Your task to perform on an android device: toggle javascript in the chrome app Image 0: 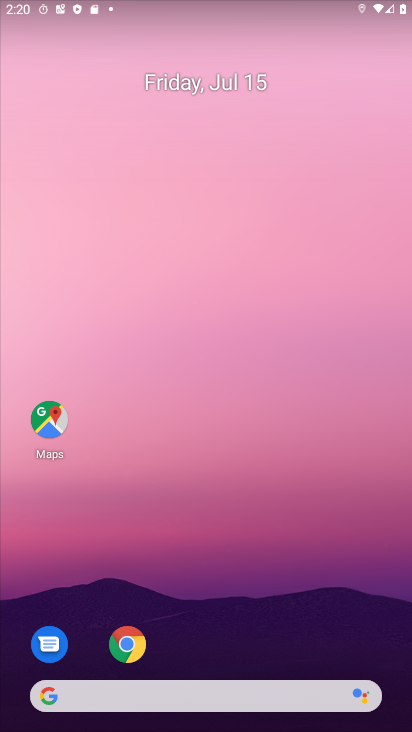
Step 0: drag from (332, 386) to (225, 42)
Your task to perform on an android device: toggle javascript in the chrome app Image 1: 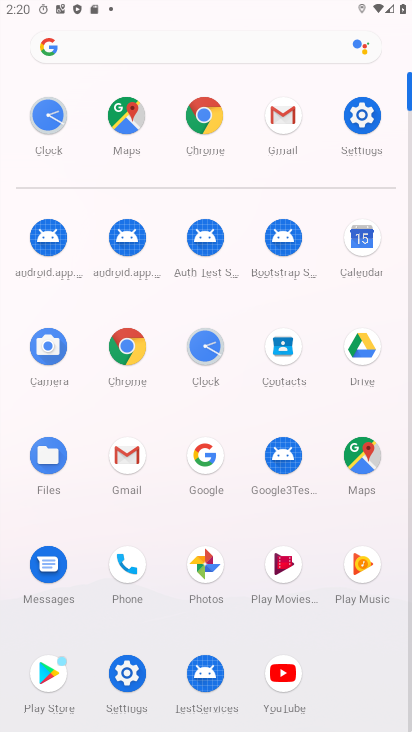
Step 1: click (208, 133)
Your task to perform on an android device: toggle javascript in the chrome app Image 2: 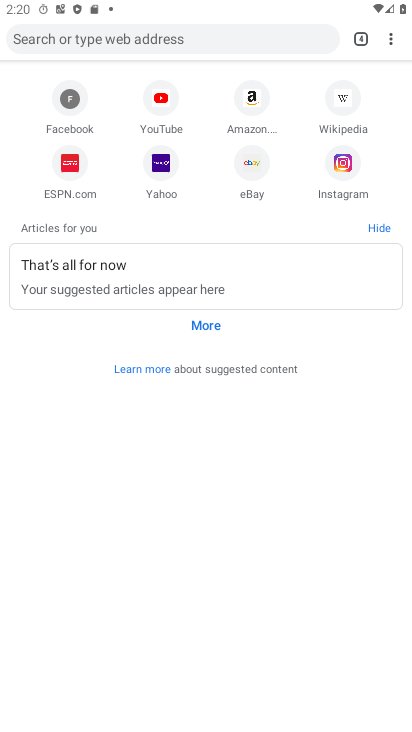
Step 2: click (388, 38)
Your task to perform on an android device: toggle javascript in the chrome app Image 3: 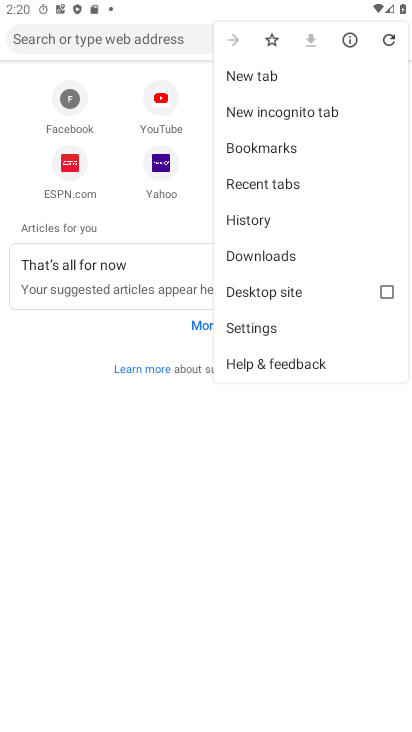
Step 3: click (257, 328)
Your task to perform on an android device: toggle javascript in the chrome app Image 4: 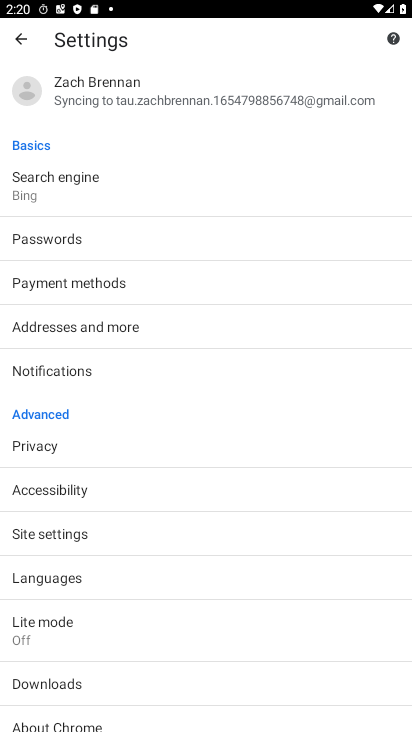
Step 4: click (60, 536)
Your task to perform on an android device: toggle javascript in the chrome app Image 5: 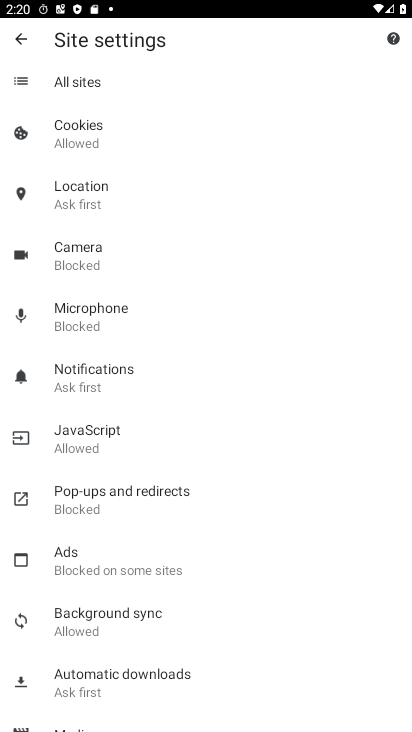
Step 5: click (129, 429)
Your task to perform on an android device: toggle javascript in the chrome app Image 6: 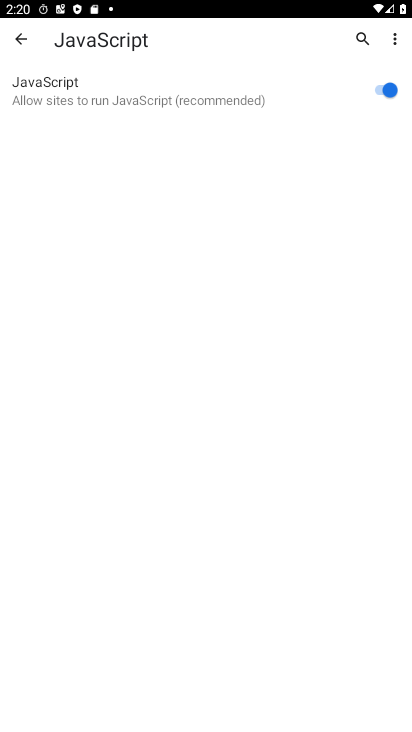
Step 6: click (394, 87)
Your task to perform on an android device: toggle javascript in the chrome app Image 7: 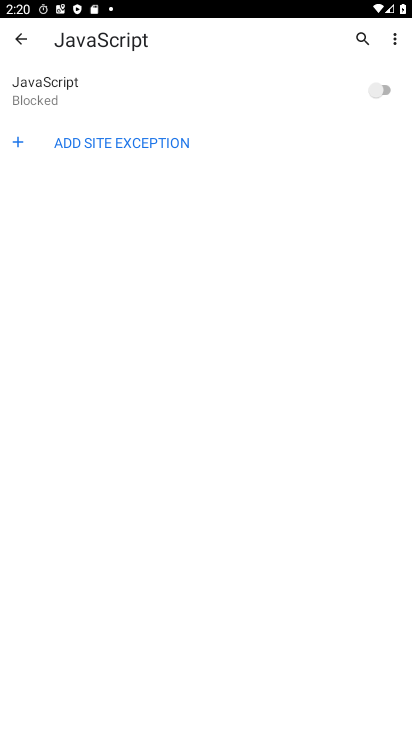
Step 7: task complete